Your task to perform on an android device: change alarm snooze length Image 0: 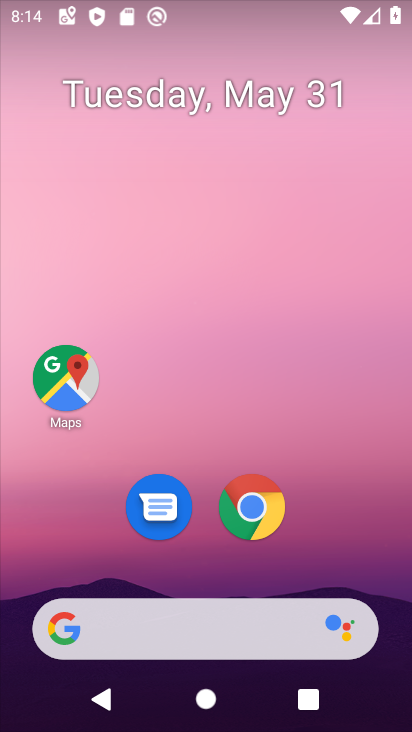
Step 0: drag from (369, 520) to (297, 142)
Your task to perform on an android device: change alarm snooze length Image 1: 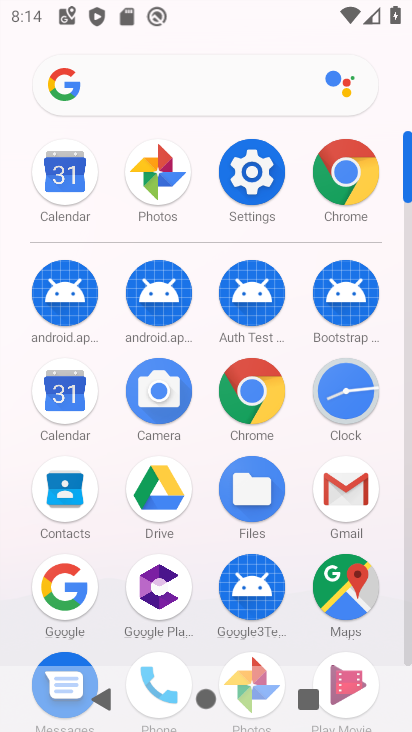
Step 1: click (344, 397)
Your task to perform on an android device: change alarm snooze length Image 2: 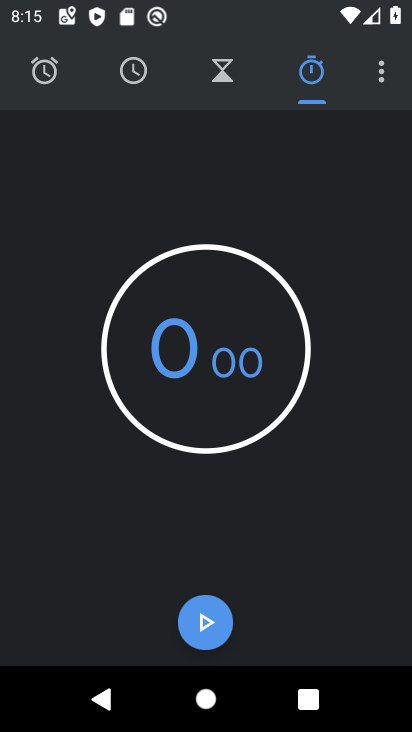
Step 2: click (389, 78)
Your task to perform on an android device: change alarm snooze length Image 3: 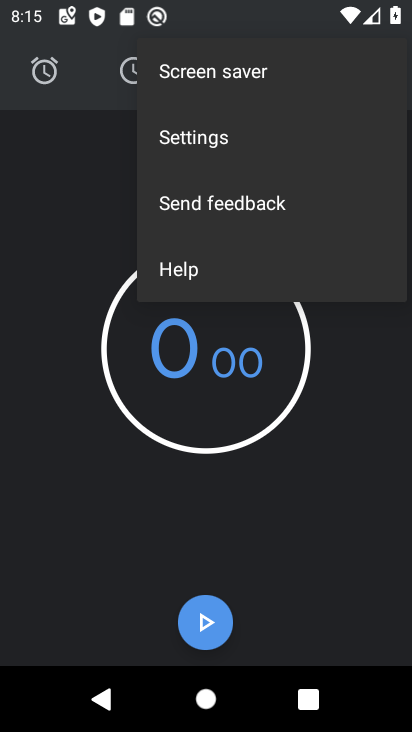
Step 3: click (225, 132)
Your task to perform on an android device: change alarm snooze length Image 4: 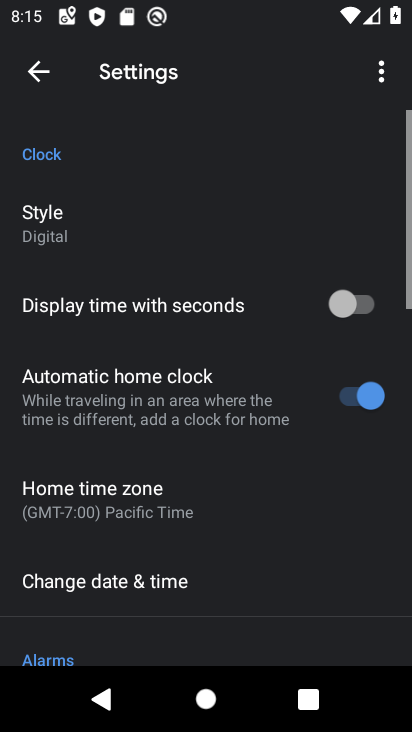
Step 4: drag from (271, 484) to (290, 42)
Your task to perform on an android device: change alarm snooze length Image 5: 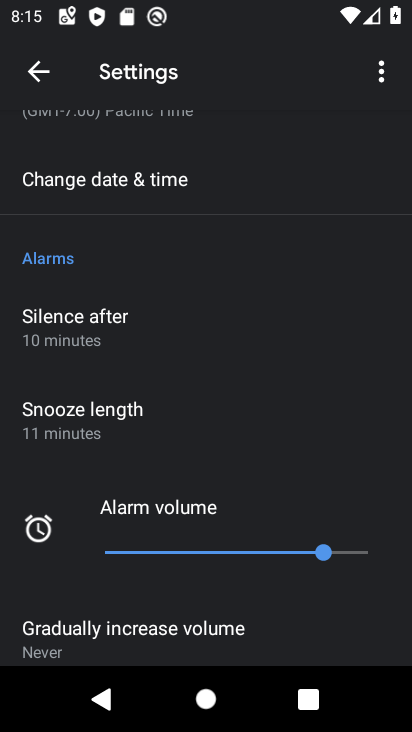
Step 5: click (124, 410)
Your task to perform on an android device: change alarm snooze length Image 6: 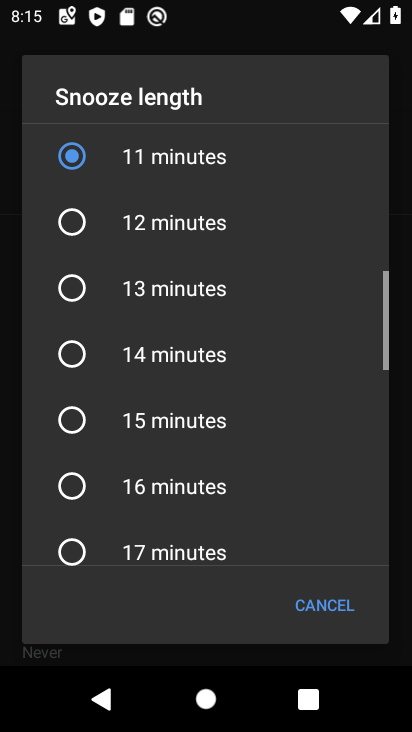
Step 6: click (166, 229)
Your task to perform on an android device: change alarm snooze length Image 7: 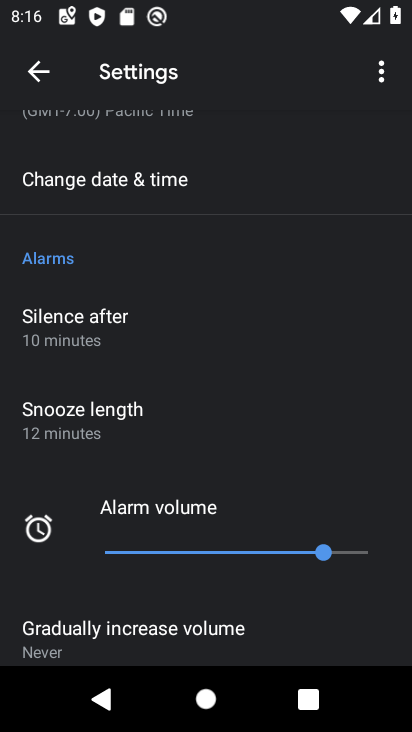
Step 7: task complete